Your task to perform on an android device: add a contact in the contacts app Image 0: 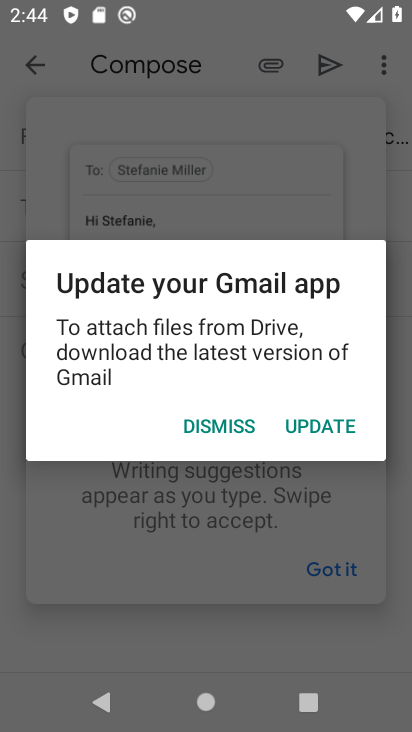
Step 0: press home button
Your task to perform on an android device: add a contact in the contacts app Image 1: 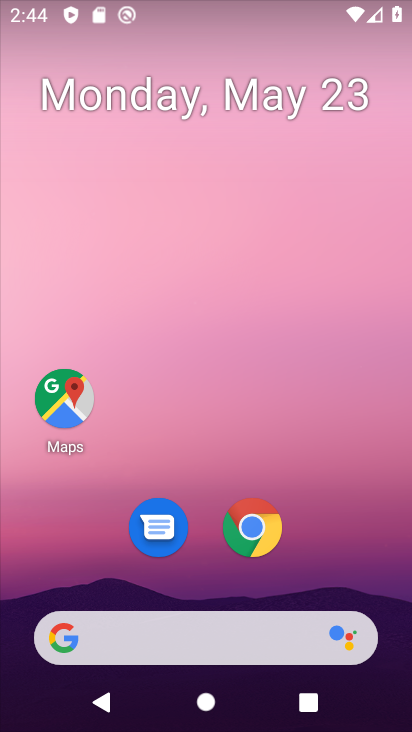
Step 1: drag from (269, 677) to (305, 142)
Your task to perform on an android device: add a contact in the contacts app Image 2: 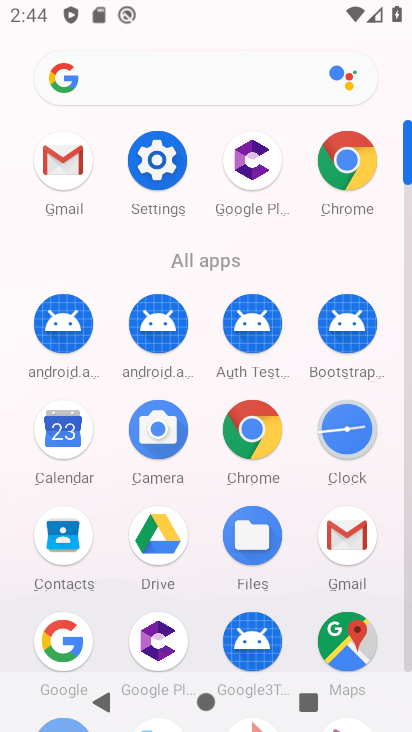
Step 2: drag from (118, 594) to (115, 260)
Your task to perform on an android device: add a contact in the contacts app Image 3: 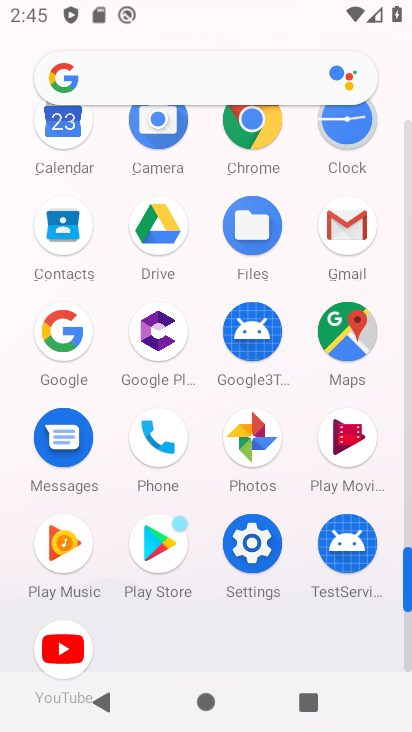
Step 3: click (165, 442)
Your task to perform on an android device: add a contact in the contacts app Image 4: 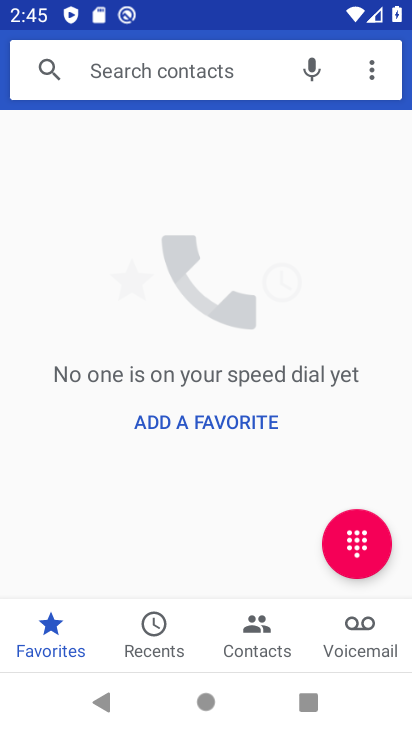
Step 4: click (247, 634)
Your task to perform on an android device: add a contact in the contacts app Image 5: 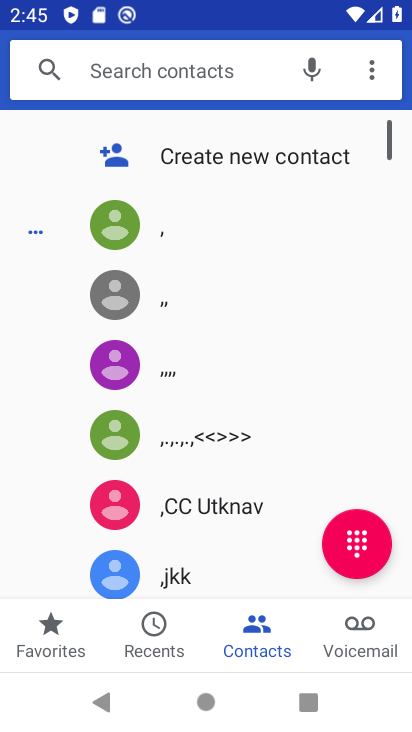
Step 5: click (367, 63)
Your task to perform on an android device: add a contact in the contacts app Image 6: 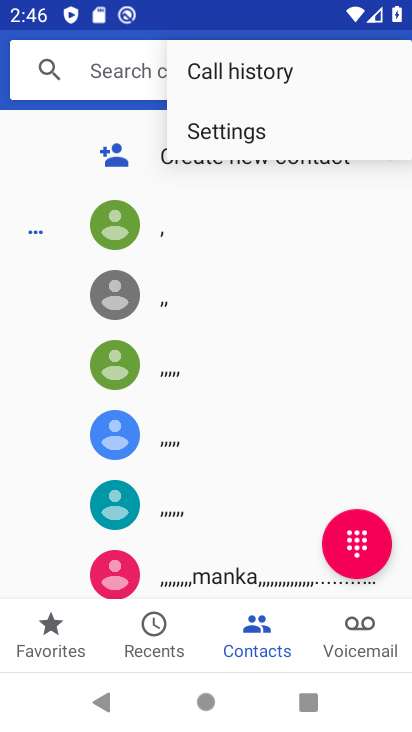
Step 6: click (178, 230)
Your task to perform on an android device: add a contact in the contacts app Image 7: 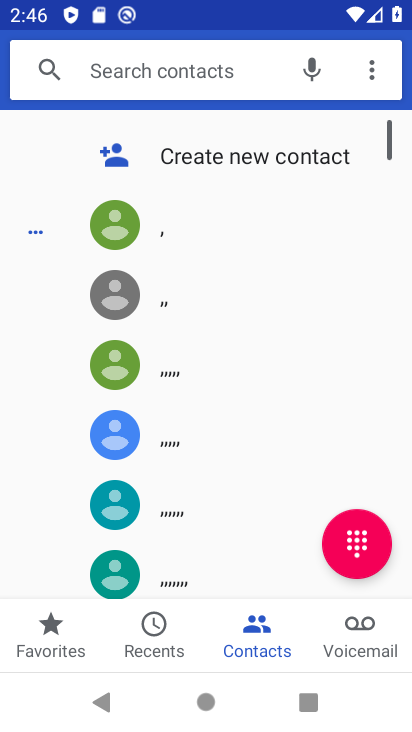
Step 7: click (146, 150)
Your task to perform on an android device: add a contact in the contacts app Image 8: 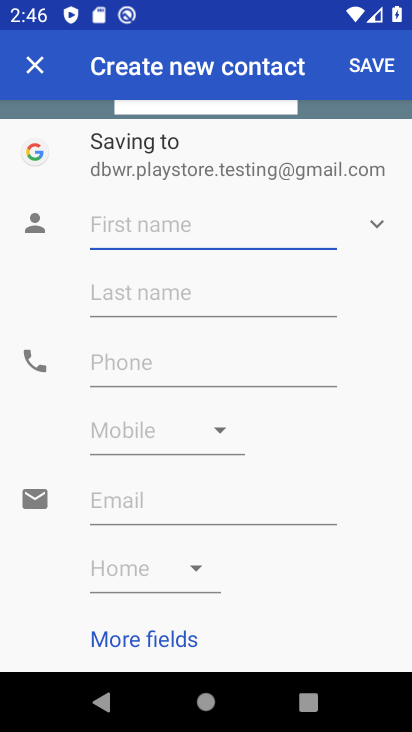
Step 8: click (161, 221)
Your task to perform on an android device: add a contact in the contacts app Image 9: 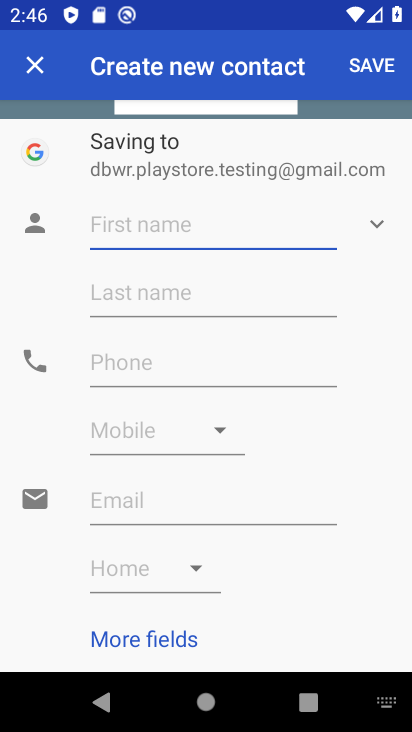
Step 9: click (173, 229)
Your task to perform on an android device: add a contact in the contacts app Image 10: 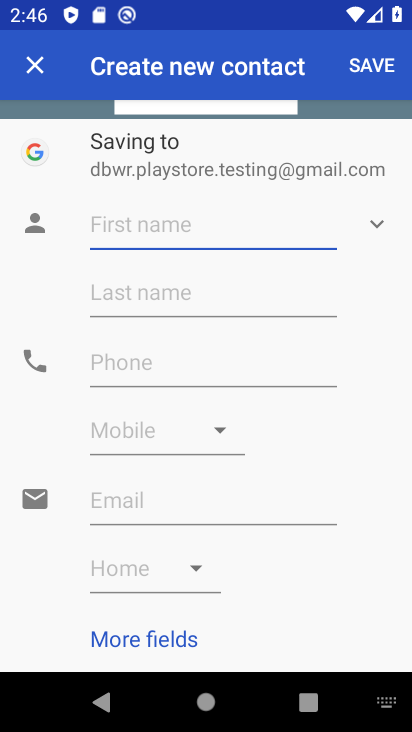
Step 10: click (391, 697)
Your task to perform on an android device: add a contact in the contacts app Image 11: 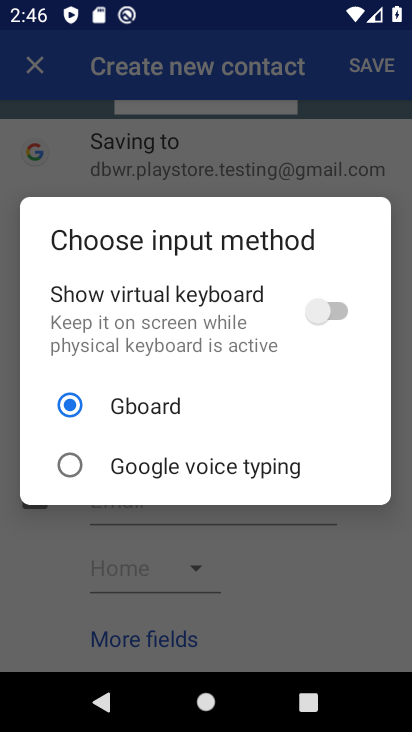
Step 11: click (322, 317)
Your task to perform on an android device: add a contact in the contacts app Image 12: 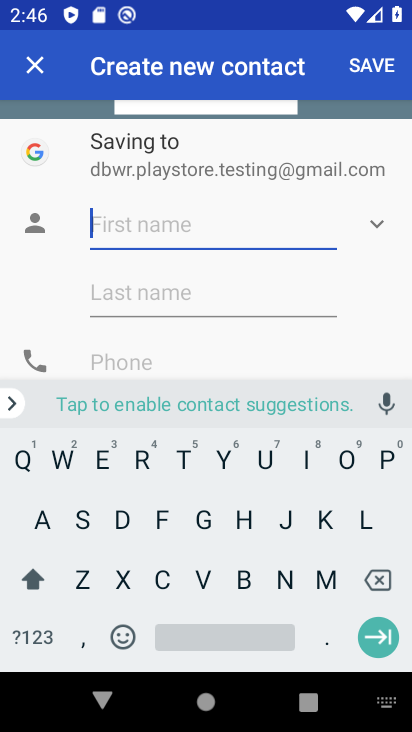
Step 12: click (152, 239)
Your task to perform on an android device: add a contact in the contacts app Image 13: 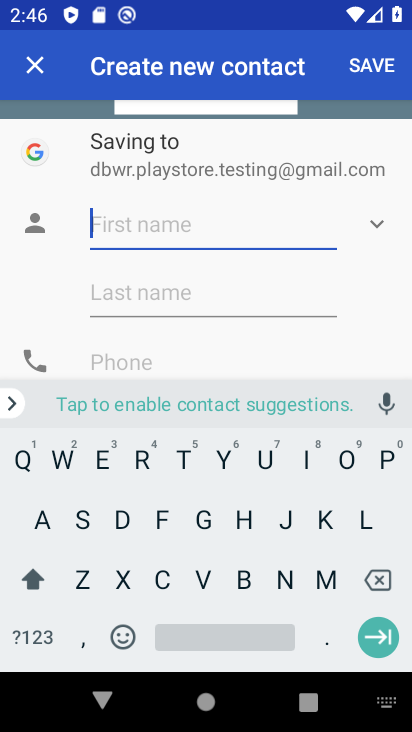
Step 13: click (198, 507)
Your task to perform on an android device: add a contact in the contacts app Image 14: 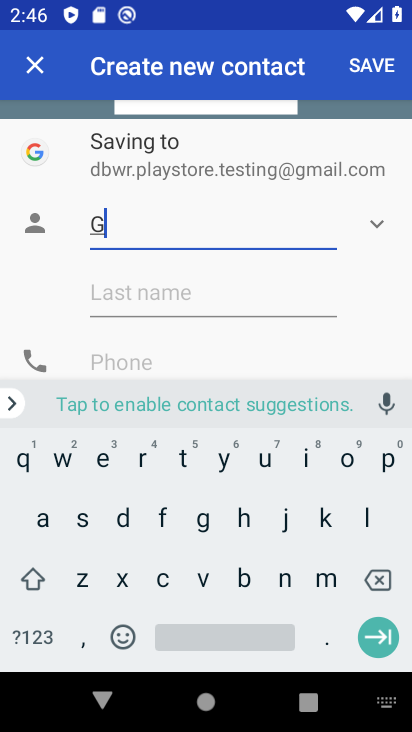
Step 14: click (134, 449)
Your task to perform on an android device: add a contact in the contacts app Image 15: 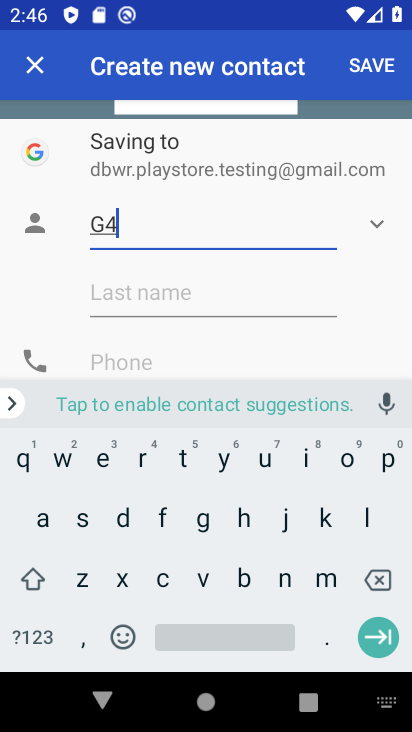
Step 15: click (127, 346)
Your task to perform on an android device: add a contact in the contacts app Image 16: 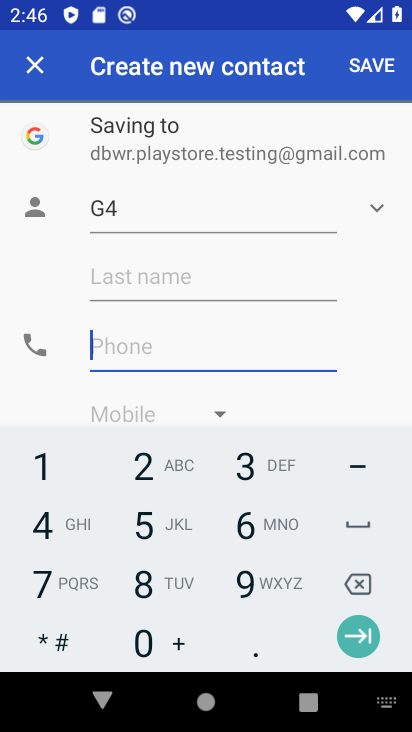
Step 16: click (125, 471)
Your task to perform on an android device: add a contact in the contacts app Image 17: 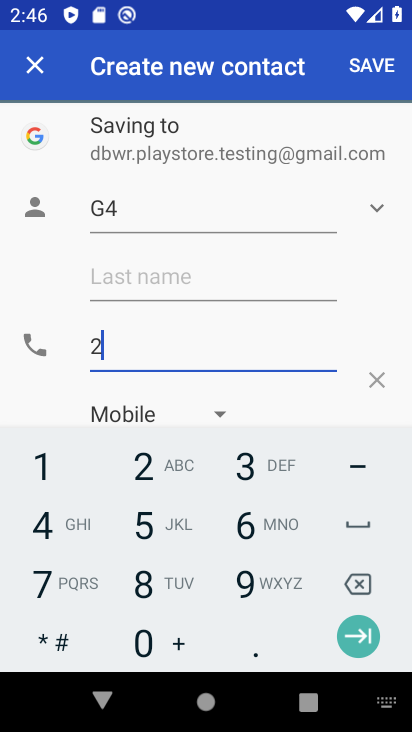
Step 17: click (143, 555)
Your task to perform on an android device: add a contact in the contacts app Image 18: 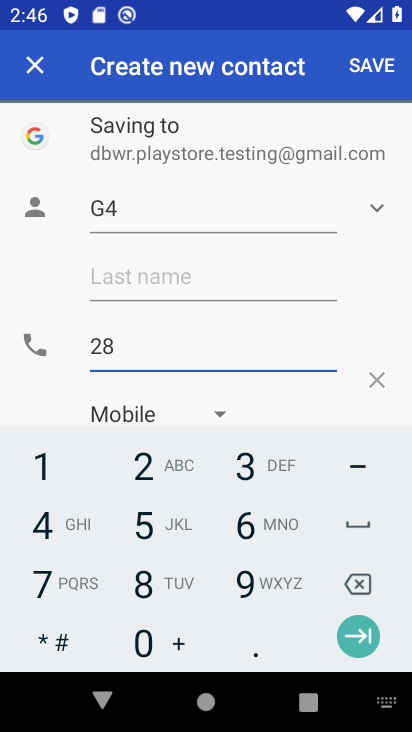
Step 18: click (66, 544)
Your task to perform on an android device: add a contact in the contacts app Image 19: 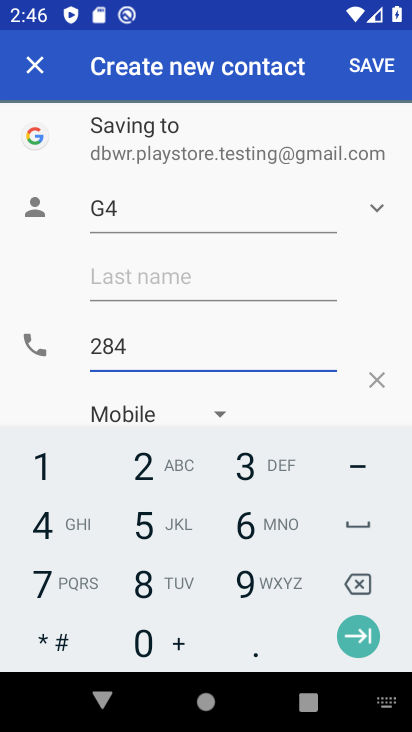
Step 19: click (72, 591)
Your task to perform on an android device: add a contact in the contacts app Image 20: 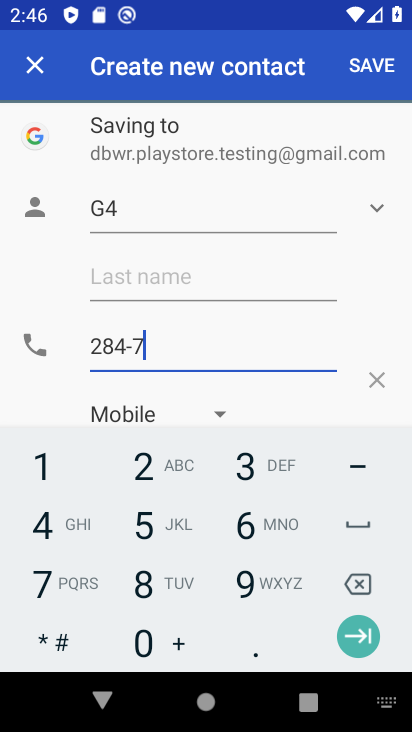
Step 20: click (238, 571)
Your task to perform on an android device: add a contact in the contacts app Image 21: 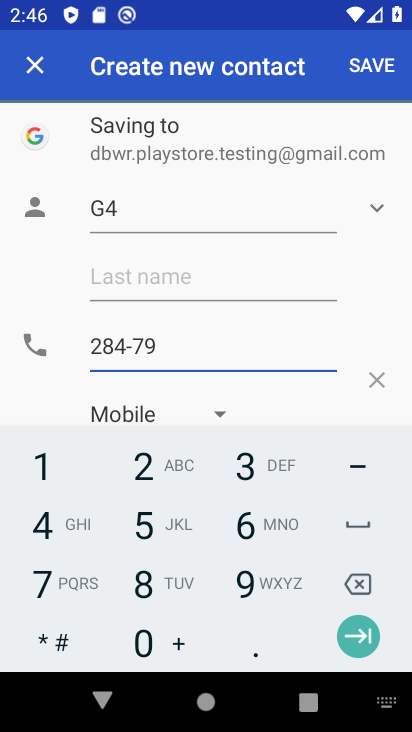
Step 21: click (354, 57)
Your task to perform on an android device: add a contact in the contacts app Image 22: 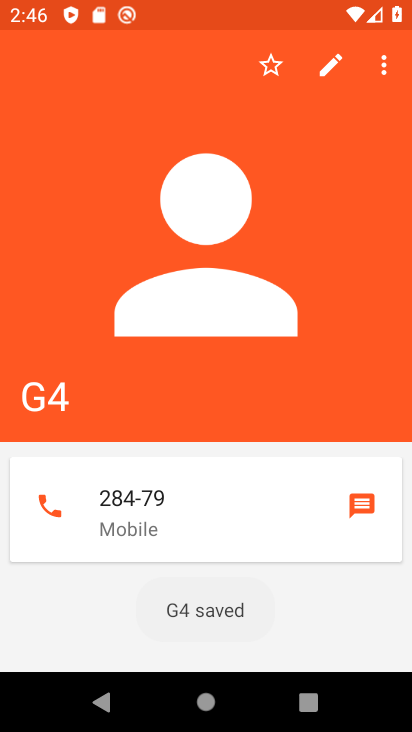
Step 22: task complete